Your task to perform on an android device: Turn off the flashlight Image 0: 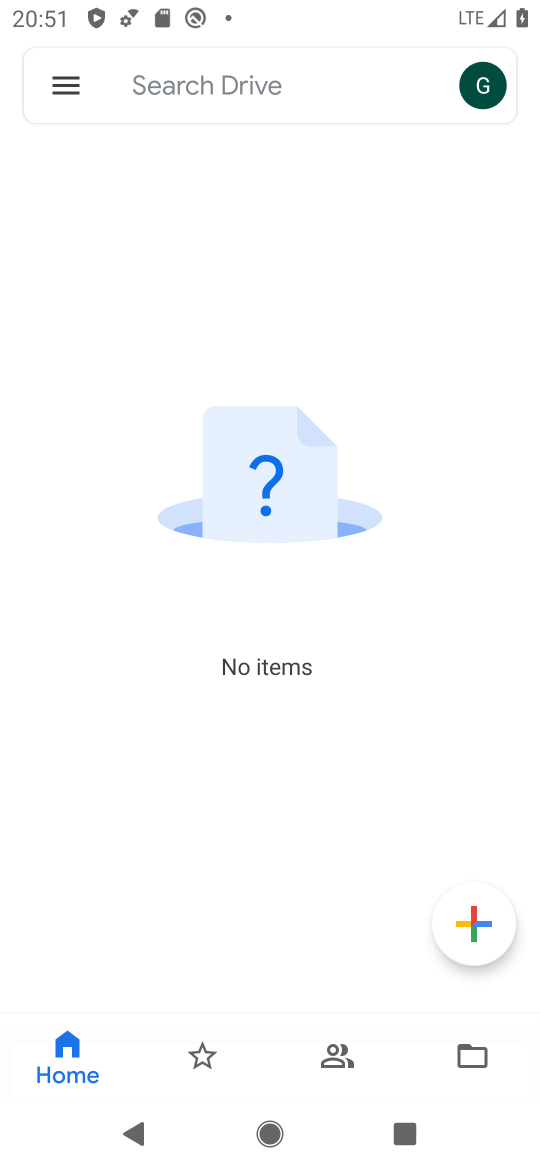
Step 0: press back button
Your task to perform on an android device: Turn off the flashlight Image 1: 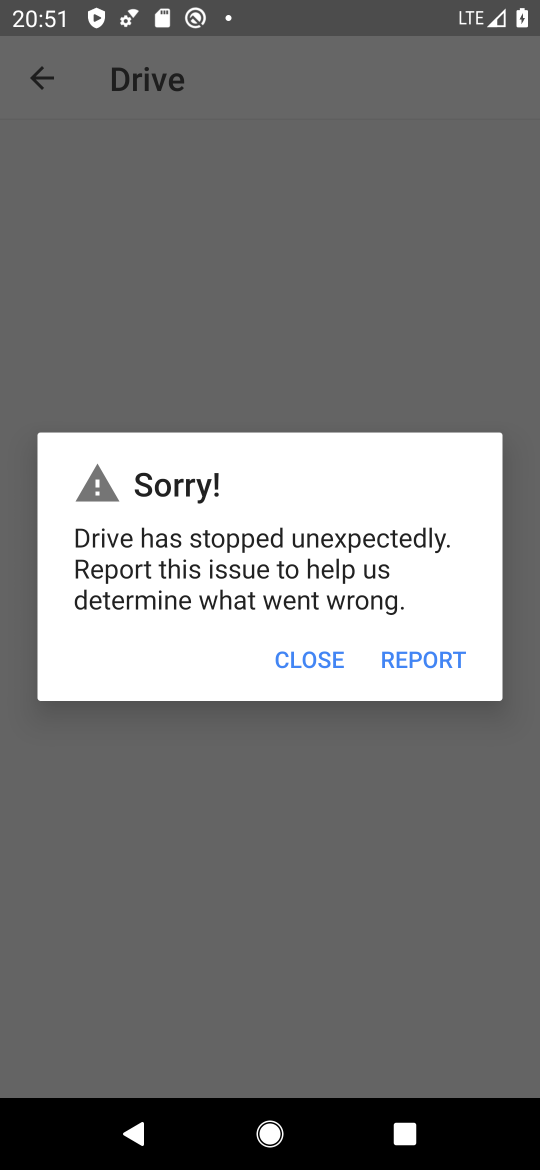
Step 1: press home button
Your task to perform on an android device: Turn off the flashlight Image 2: 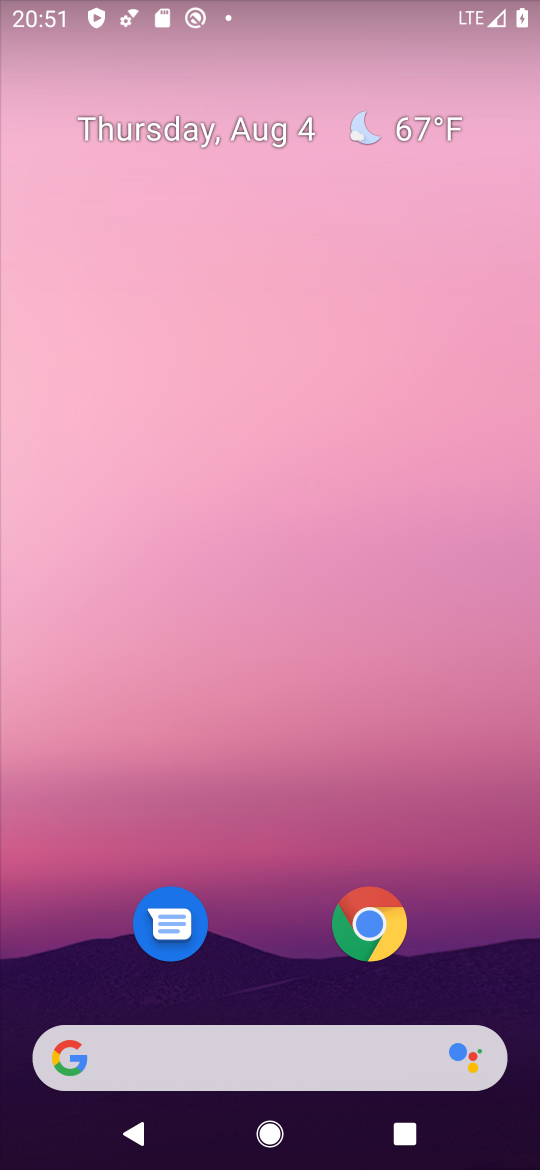
Step 2: drag from (312, 1022) to (235, 499)
Your task to perform on an android device: Turn off the flashlight Image 3: 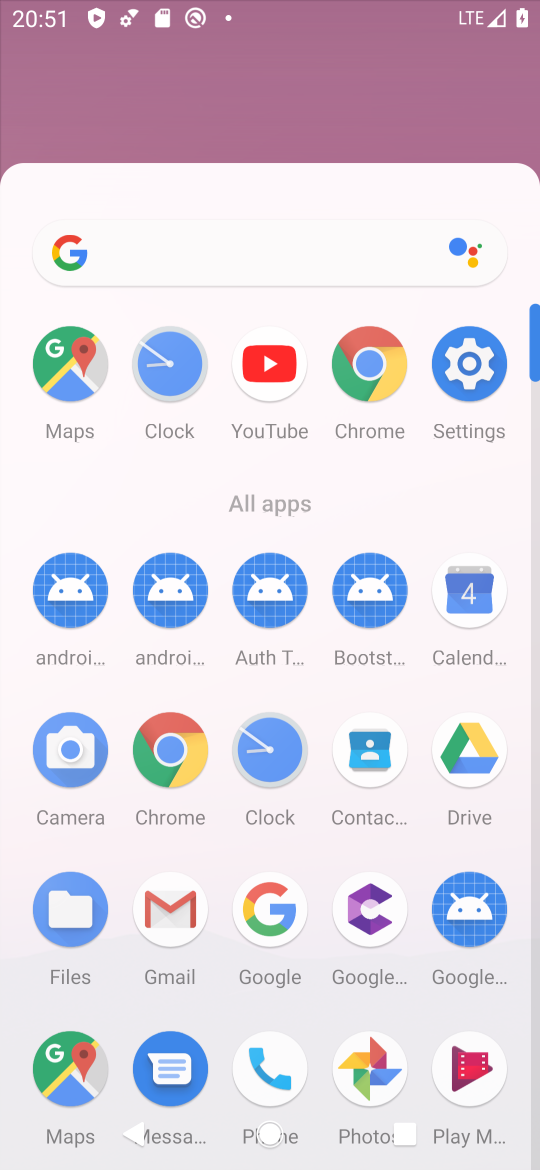
Step 3: click (483, 213)
Your task to perform on an android device: Turn off the flashlight Image 4: 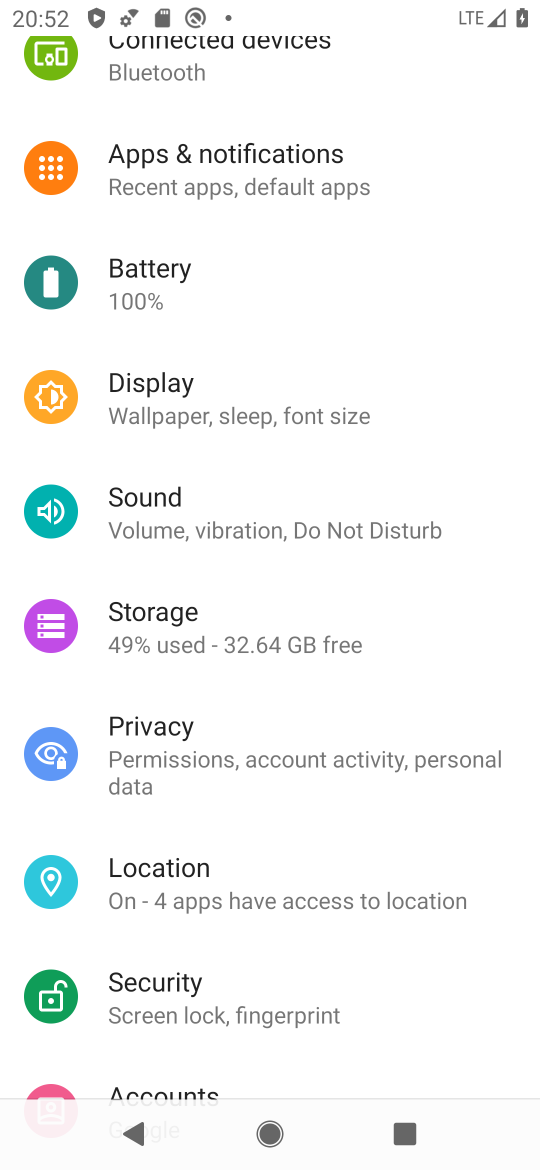
Step 4: task complete